Your task to perform on an android device: open sync settings in chrome Image 0: 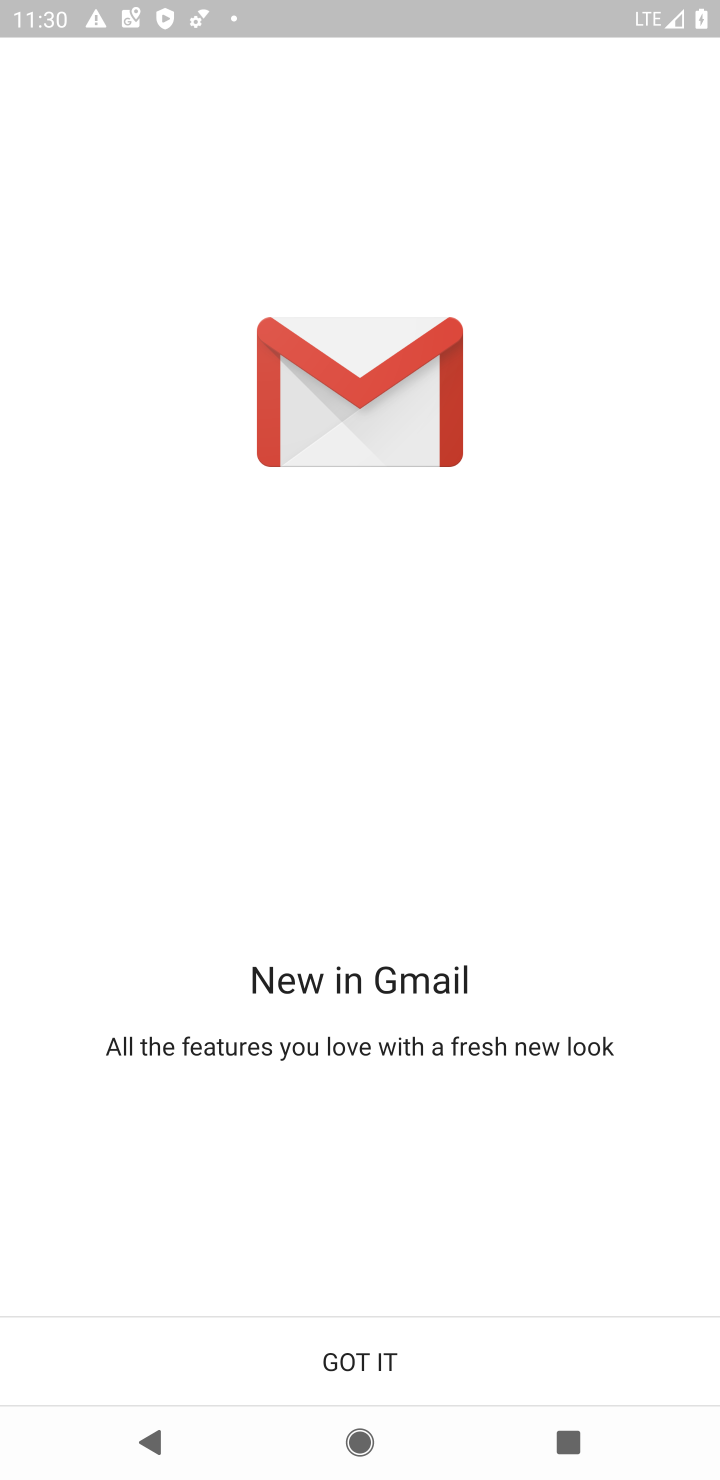
Step 0: click (360, 1363)
Your task to perform on an android device: open sync settings in chrome Image 1: 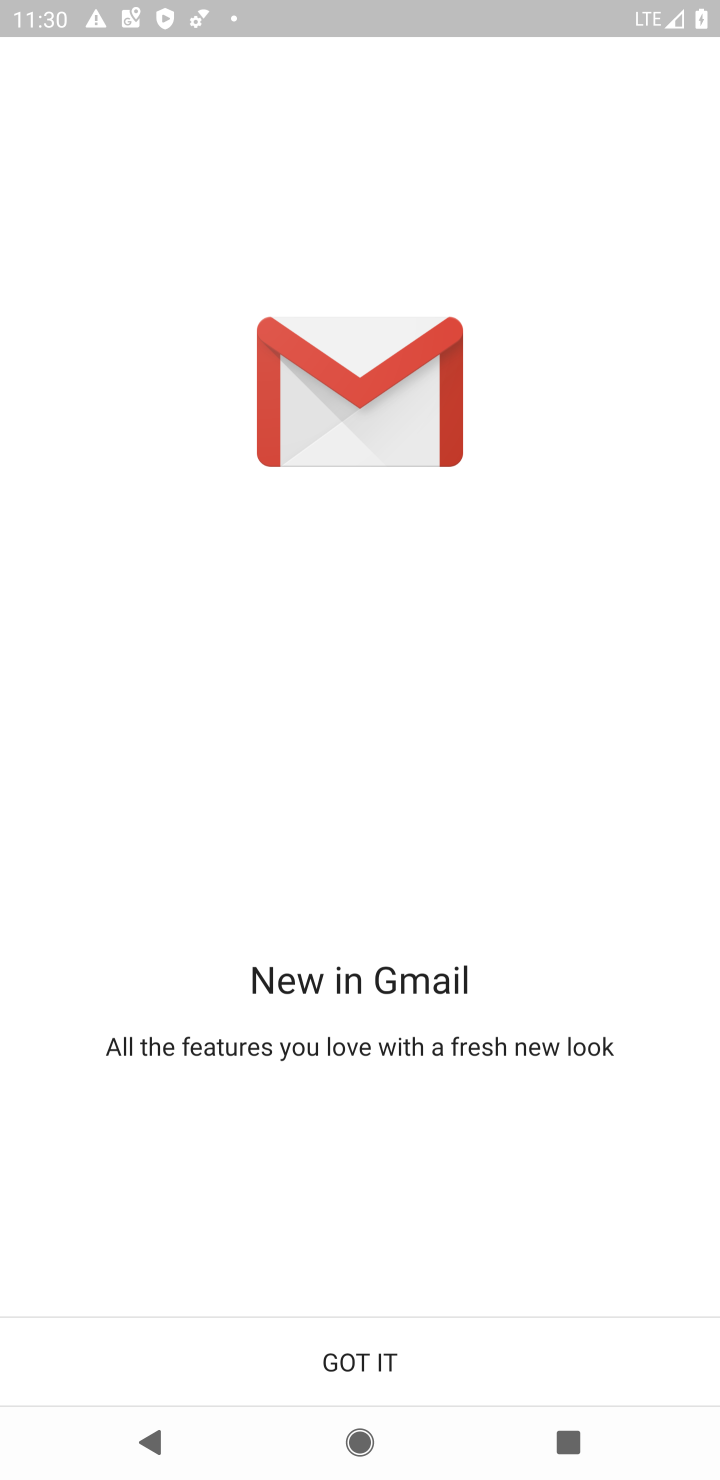
Step 1: press home button
Your task to perform on an android device: open sync settings in chrome Image 2: 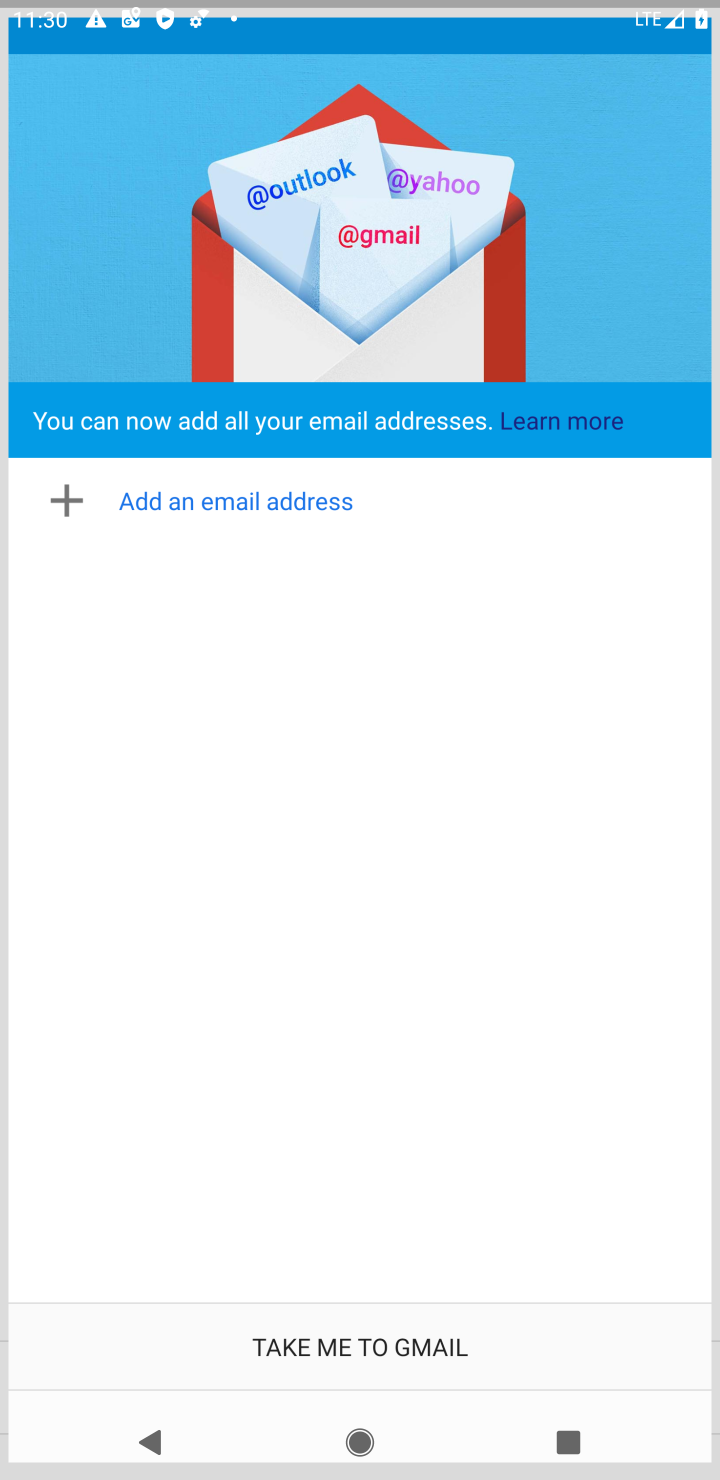
Step 2: click (471, 442)
Your task to perform on an android device: open sync settings in chrome Image 3: 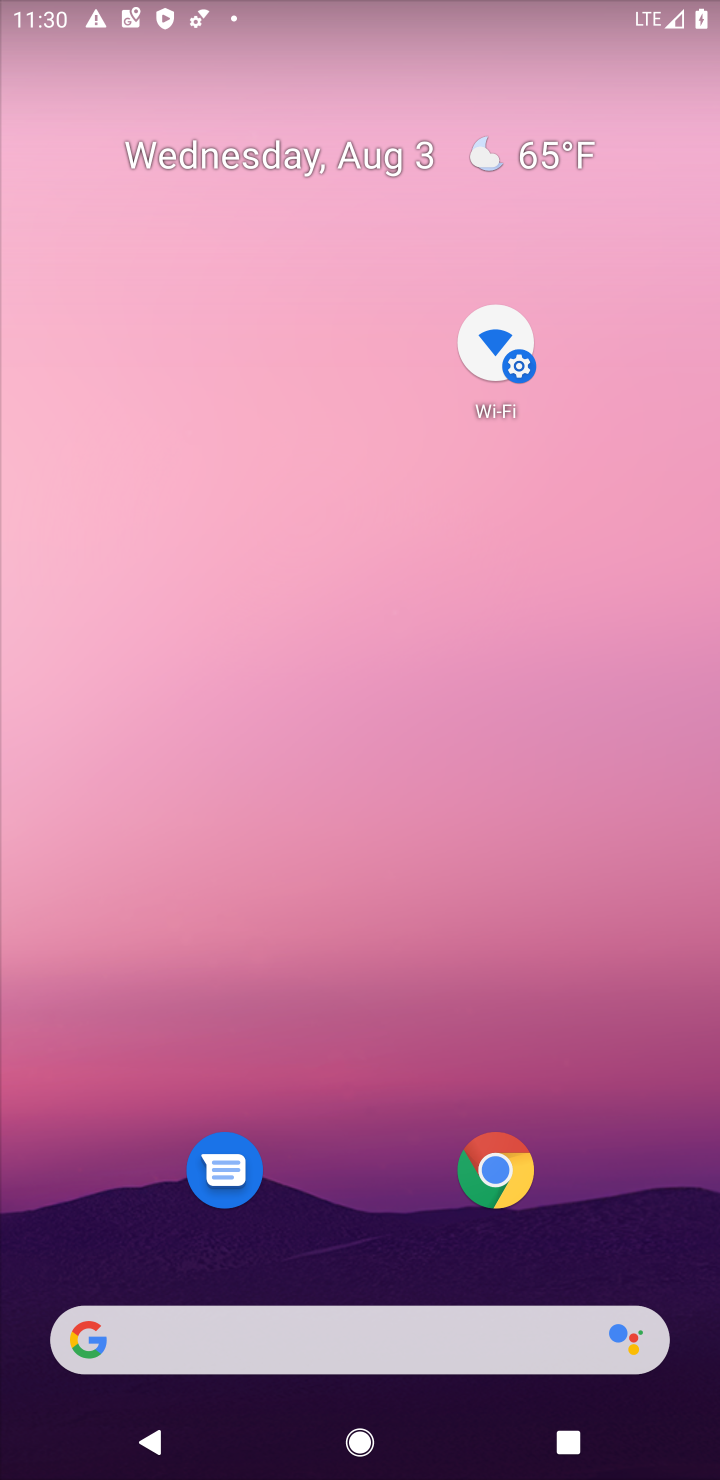
Step 3: click (497, 1156)
Your task to perform on an android device: open sync settings in chrome Image 4: 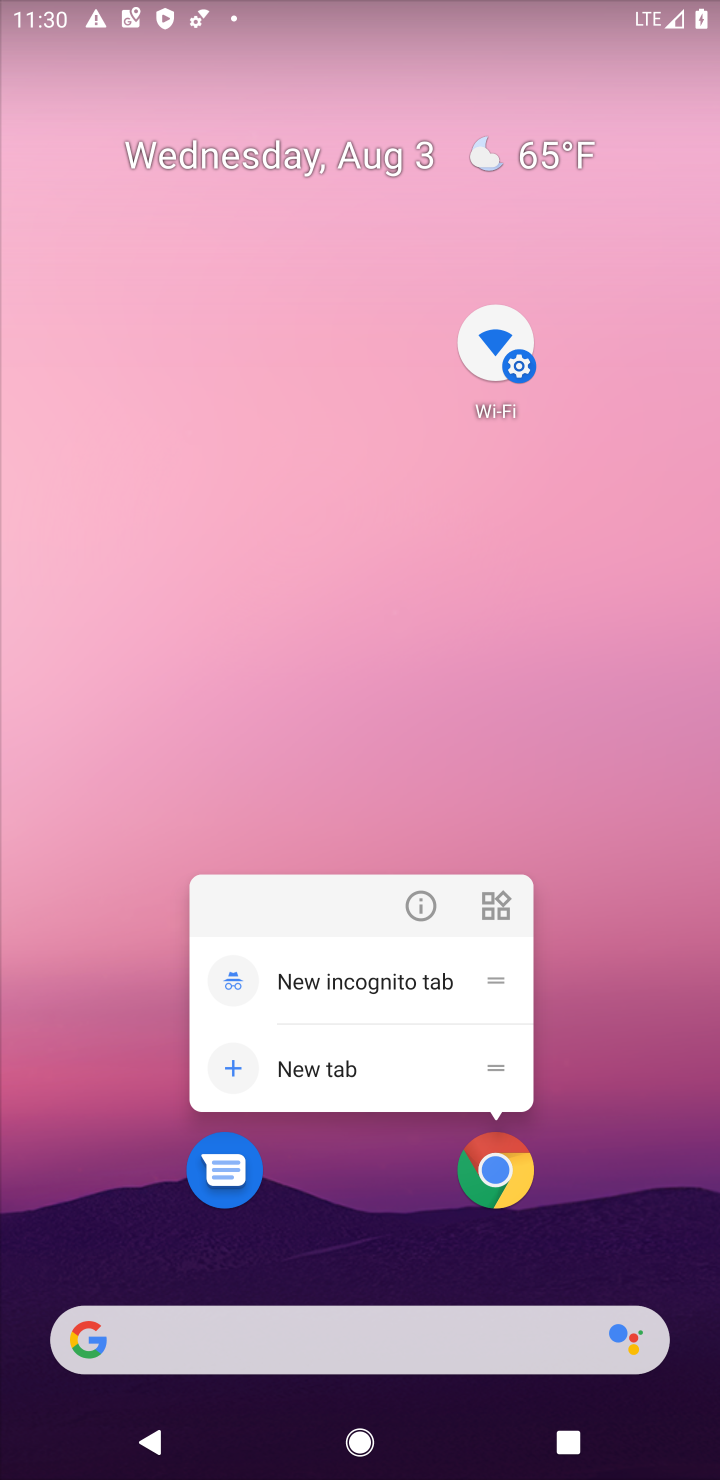
Step 4: click (412, 908)
Your task to perform on an android device: open sync settings in chrome Image 5: 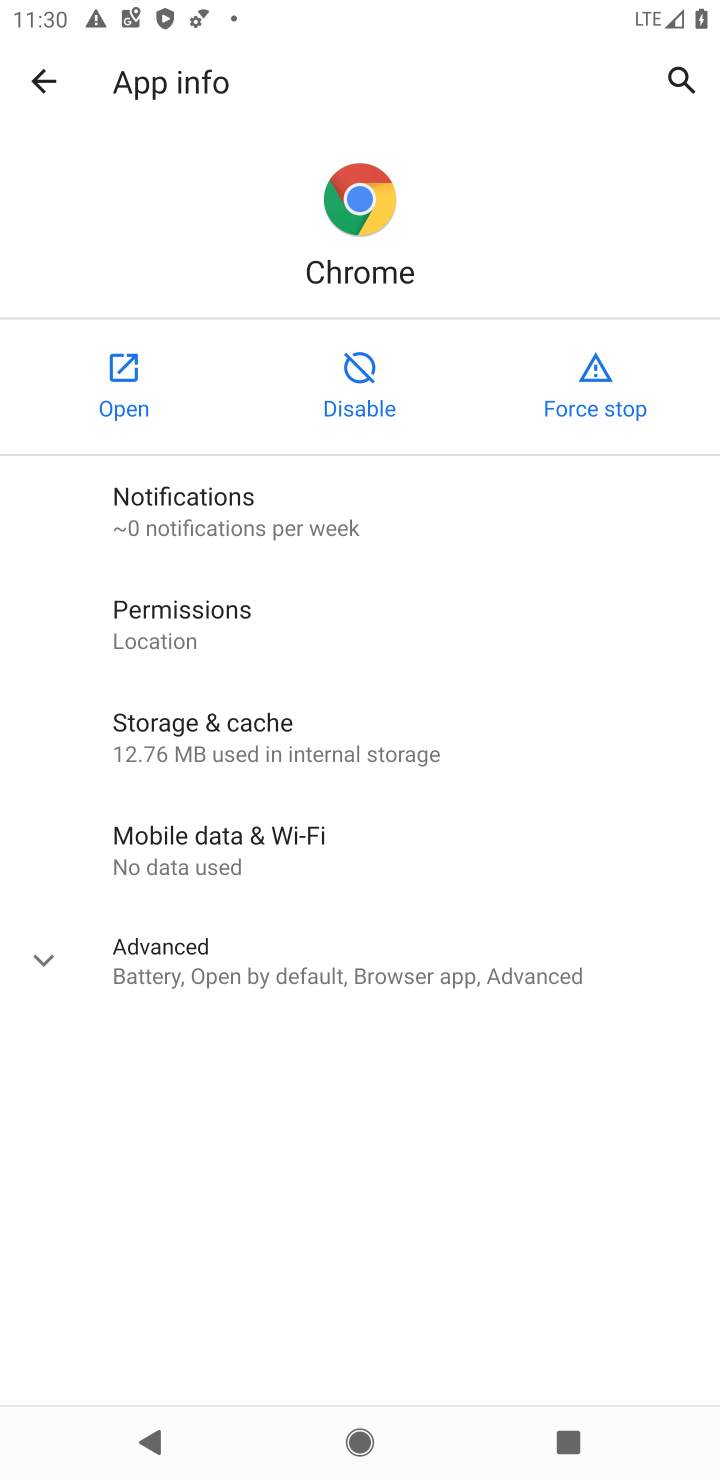
Step 5: click (134, 421)
Your task to perform on an android device: open sync settings in chrome Image 6: 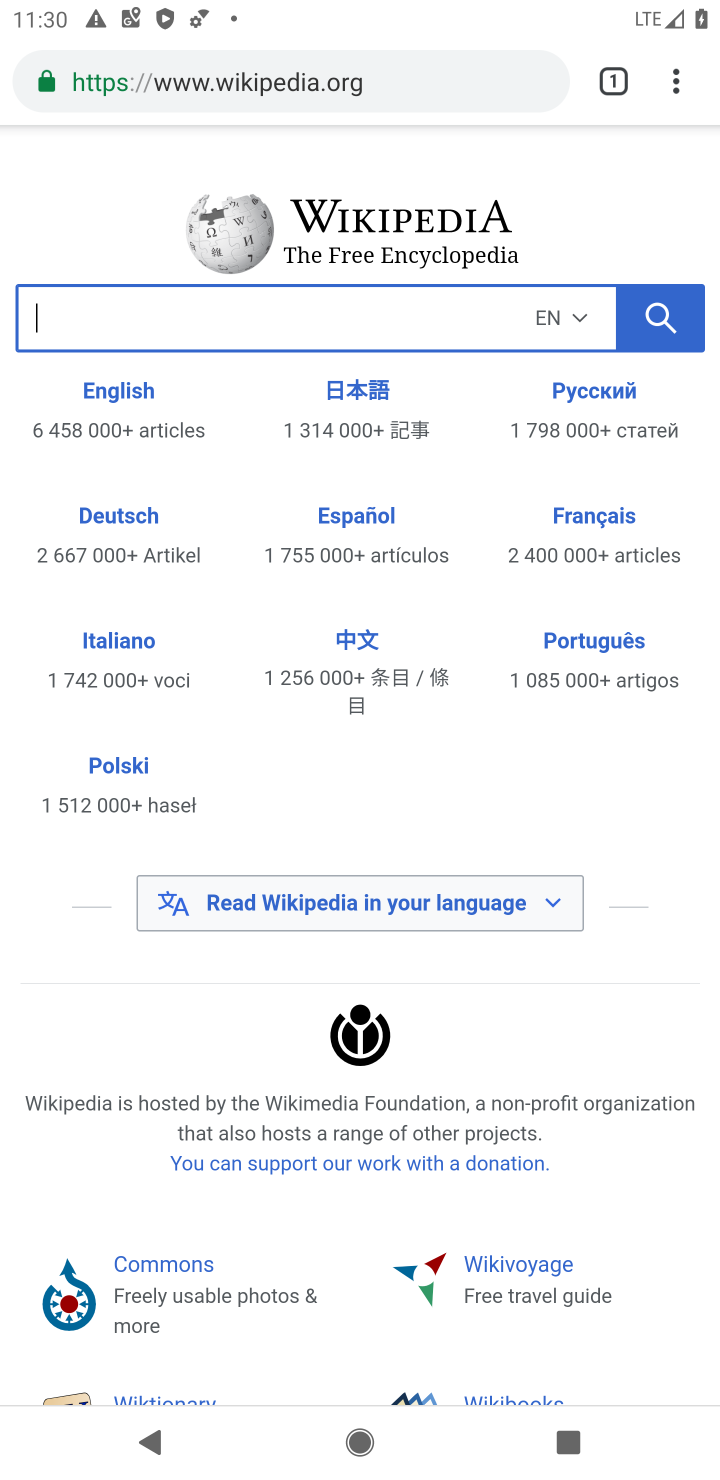
Step 6: drag from (668, 93) to (424, 978)
Your task to perform on an android device: open sync settings in chrome Image 7: 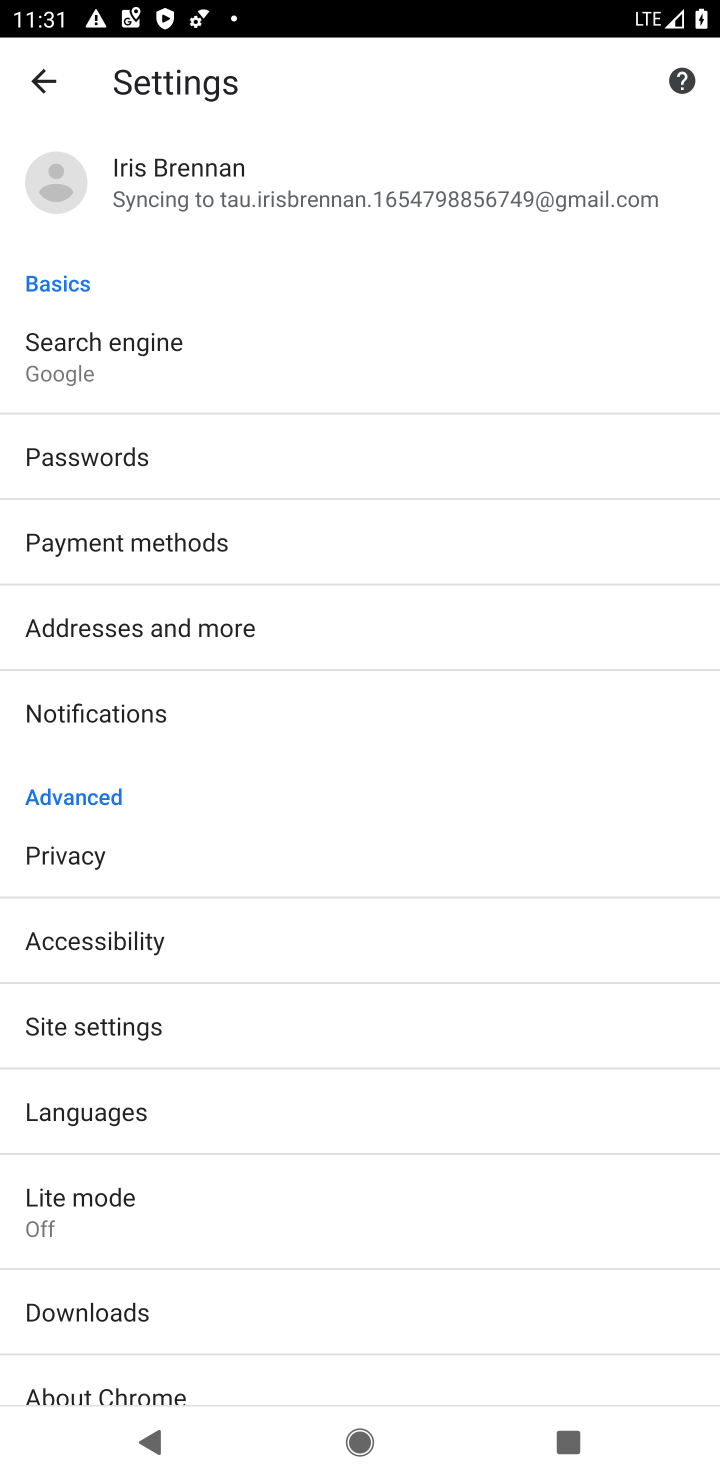
Step 7: drag from (262, 1076) to (370, 555)
Your task to perform on an android device: open sync settings in chrome Image 8: 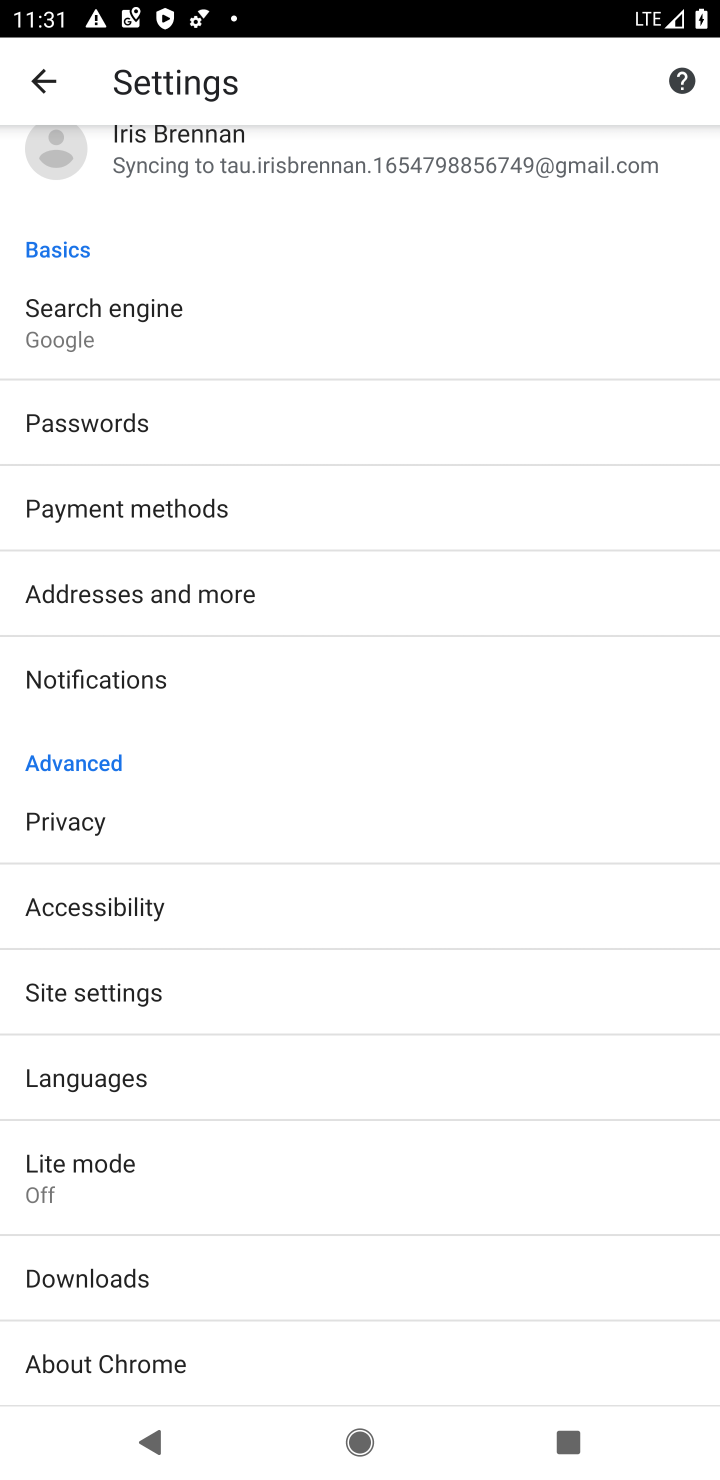
Step 8: click (96, 975)
Your task to perform on an android device: open sync settings in chrome Image 9: 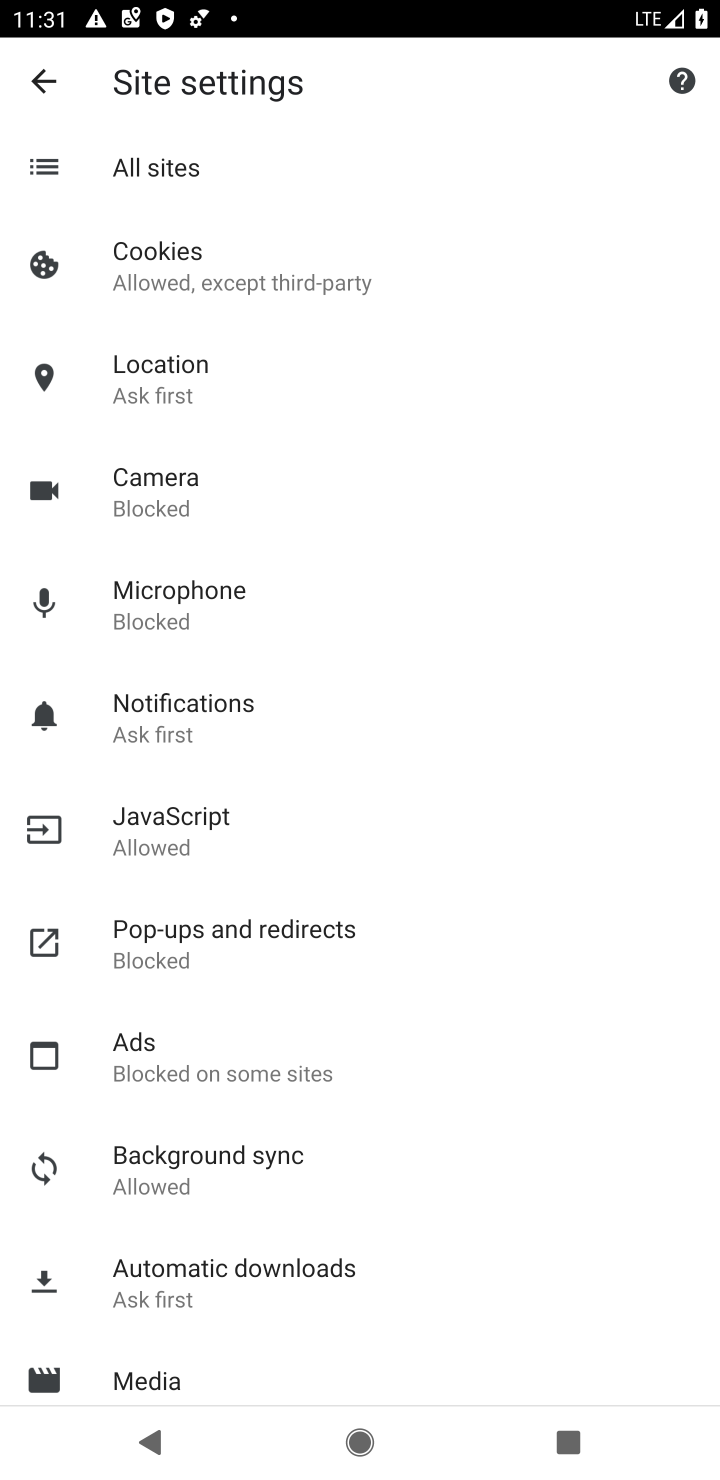
Step 9: click (251, 1188)
Your task to perform on an android device: open sync settings in chrome Image 10: 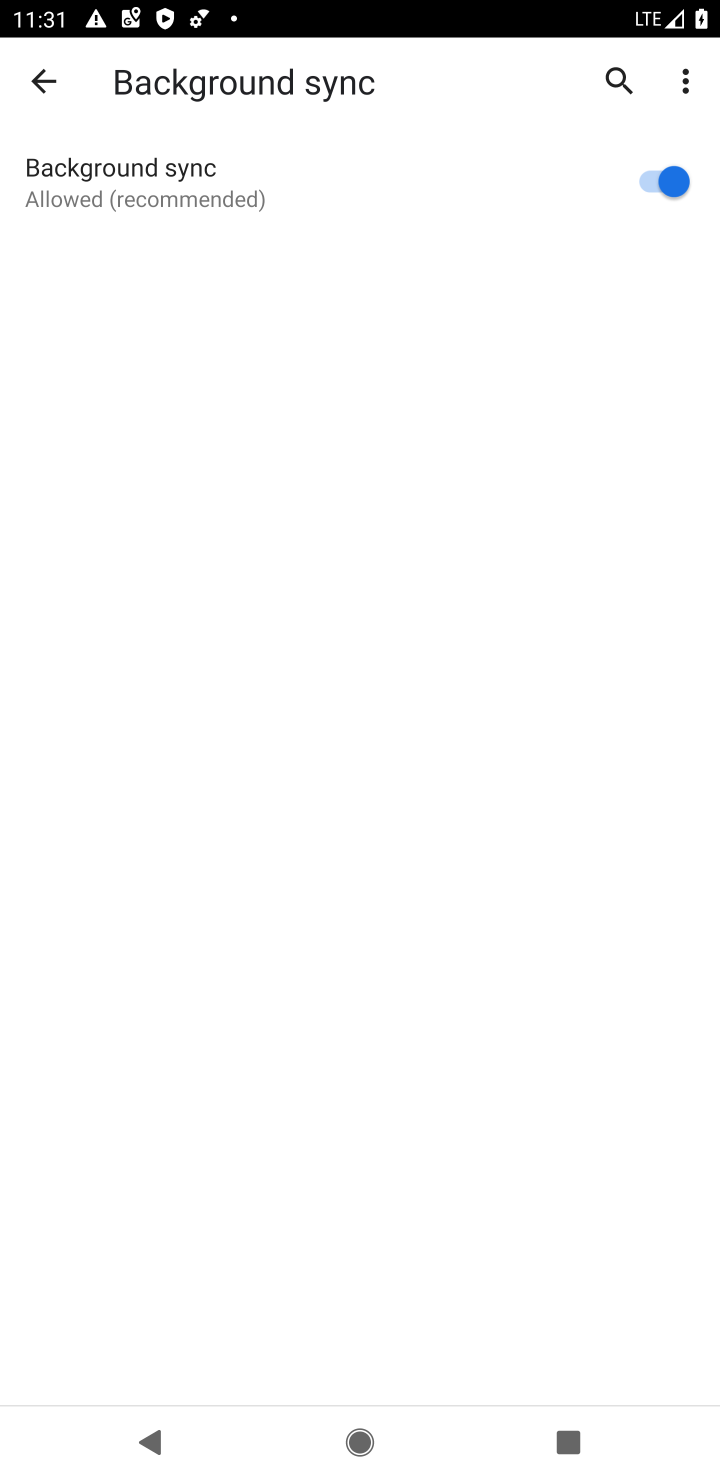
Step 10: task complete